Your task to perform on an android device: toggle airplane mode Image 0: 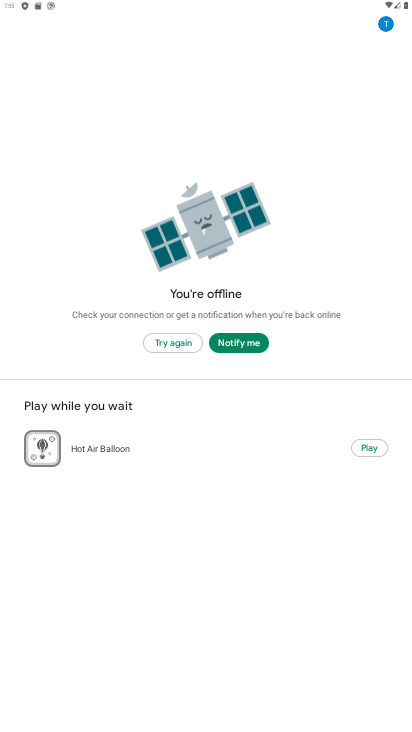
Step 0: press home button
Your task to perform on an android device: toggle airplane mode Image 1: 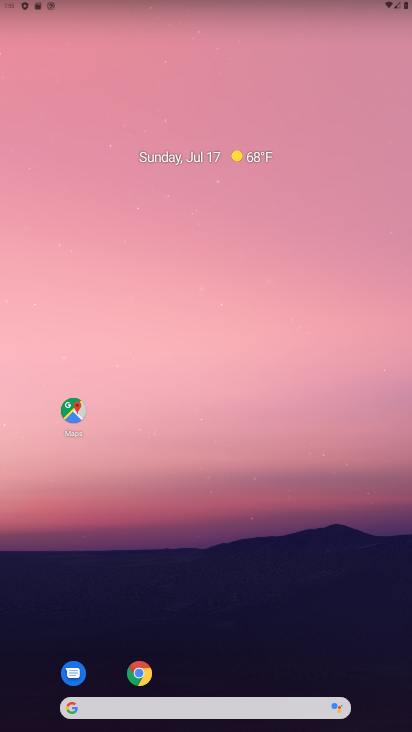
Step 1: drag from (317, 657) to (239, 0)
Your task to perform on an android device: toggle airplane mode Image 2: 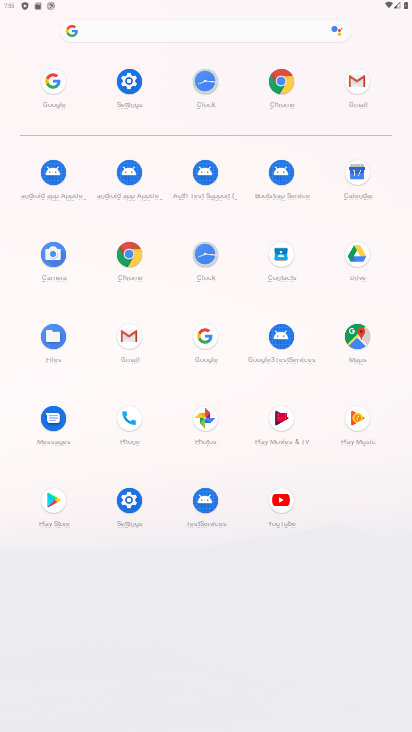
Step 2: click (125, 80)
Your task to perform on an android device: toggle airplane mode Image 3: 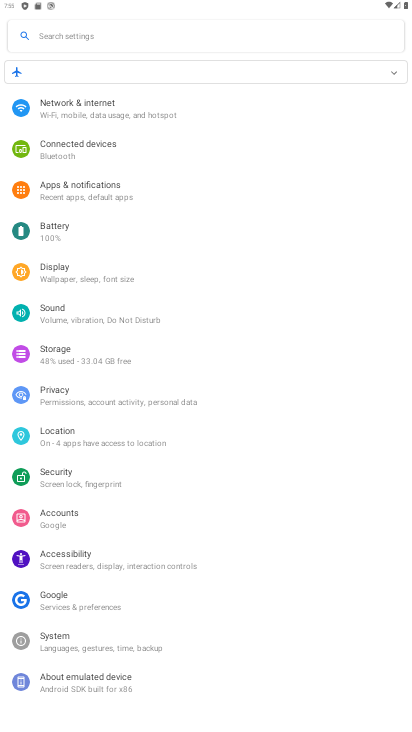
Step 3: click (103, 109)
Your task to perform on an android device: toggle airplane mode Image 4: 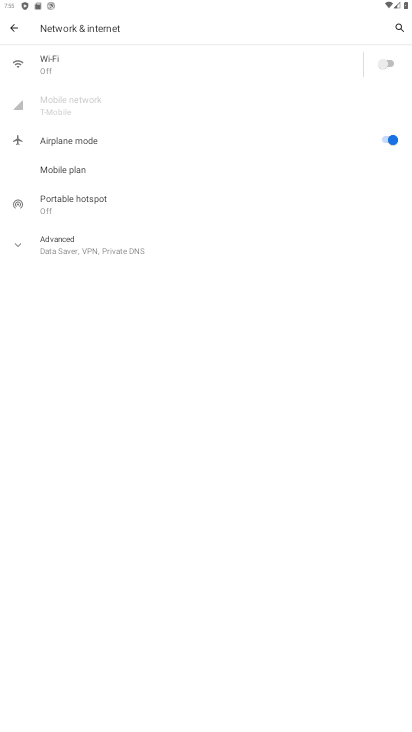
Step 4: click (383, 147)
Your task to perform on an android device: toggle airplane mode Image 5: 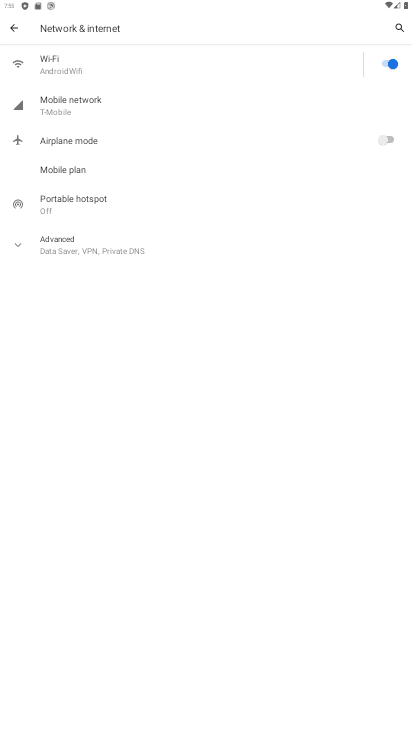
Step 5: task complete